Your task to perform on an android device: Show me recent news Image 0: 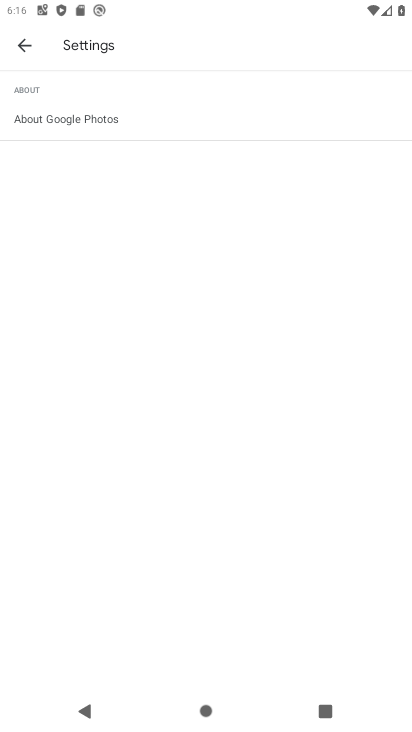
Step 0: press home button
Your task to perform on an android device: Show me recent news Image 1: 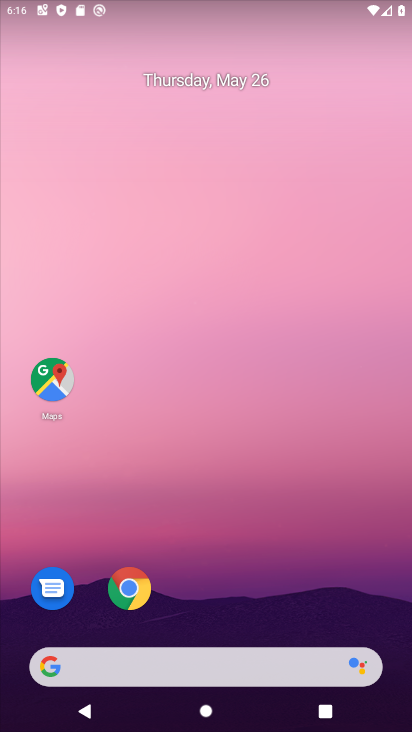
Step 1: drag from (375, 624) to (333, 89)
Your task to perform on an android device: Show me recent news Image 2: 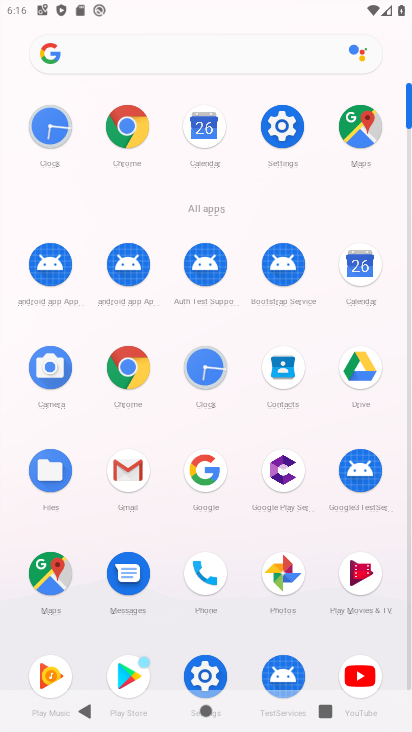
Step 2: click (198, 479)
Your task to perform on an android device: Show me recent news Image 3: 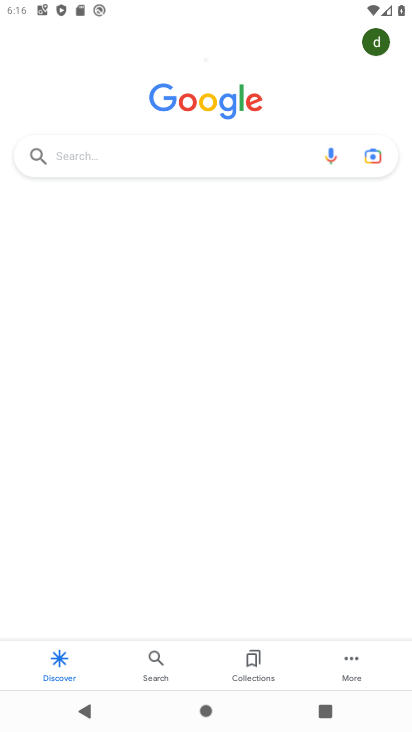
Step 3: click (161, 162)
Your task to perform on an android device: Show me recent news Image 4: 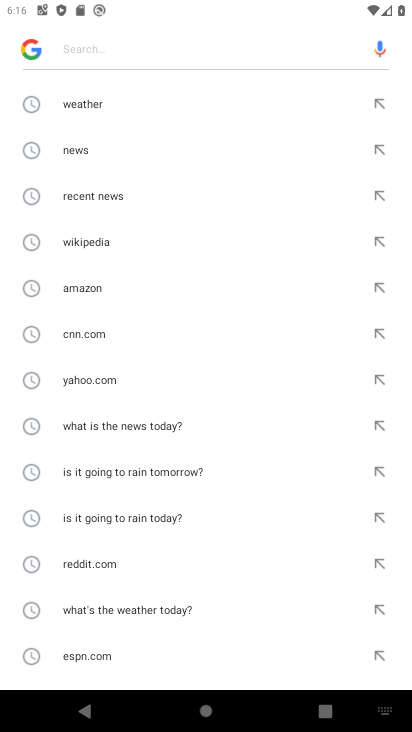
Step 4: click (76, 202)
Your task to perform on an android device: Show me recent news Image 5: 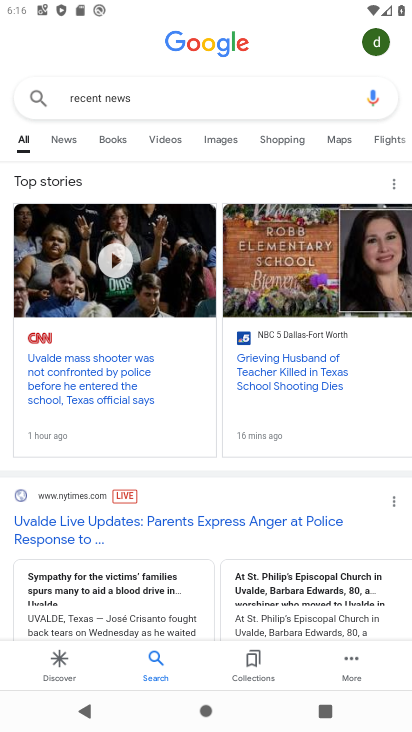
Step 5: task complete